Your task to perform on an android device: What is the recent news? Image 0: 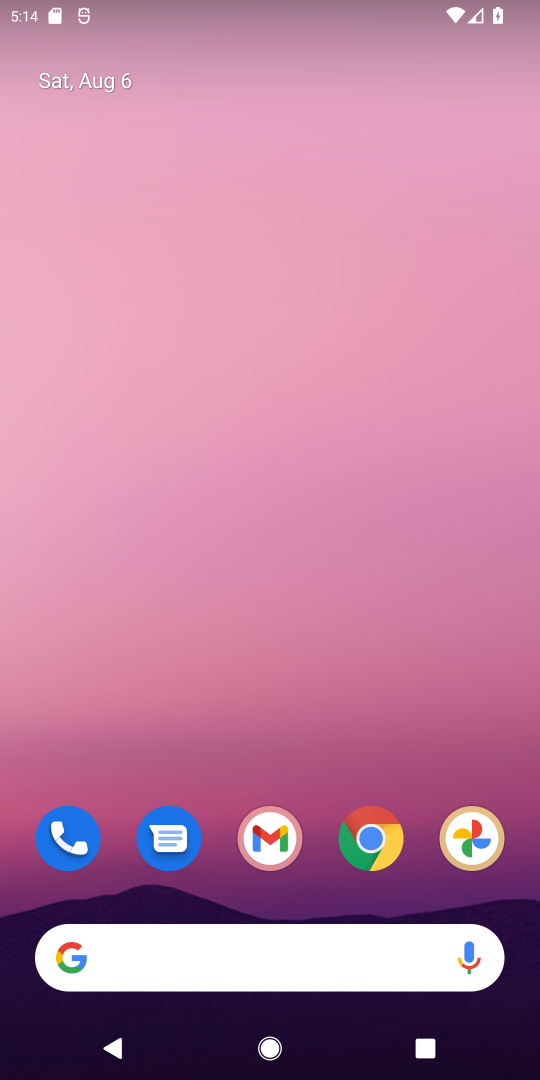
Step 0: click (79, 983)
Your task to perform on an android device: What is the recent news? Image 1: 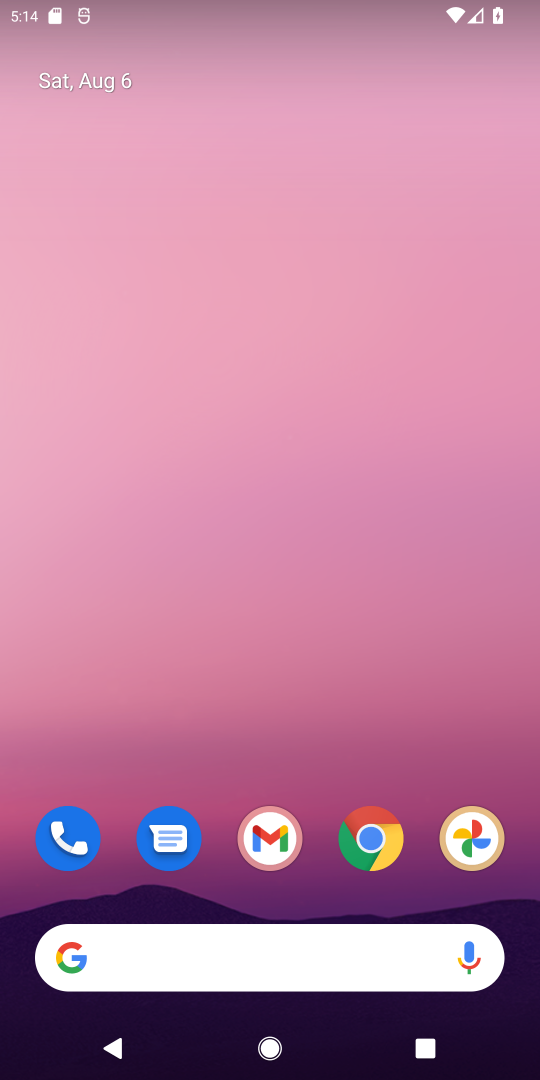
Step 1: click (50, 942)
Your task to perform on an android device: What is the recent news? Image 2: 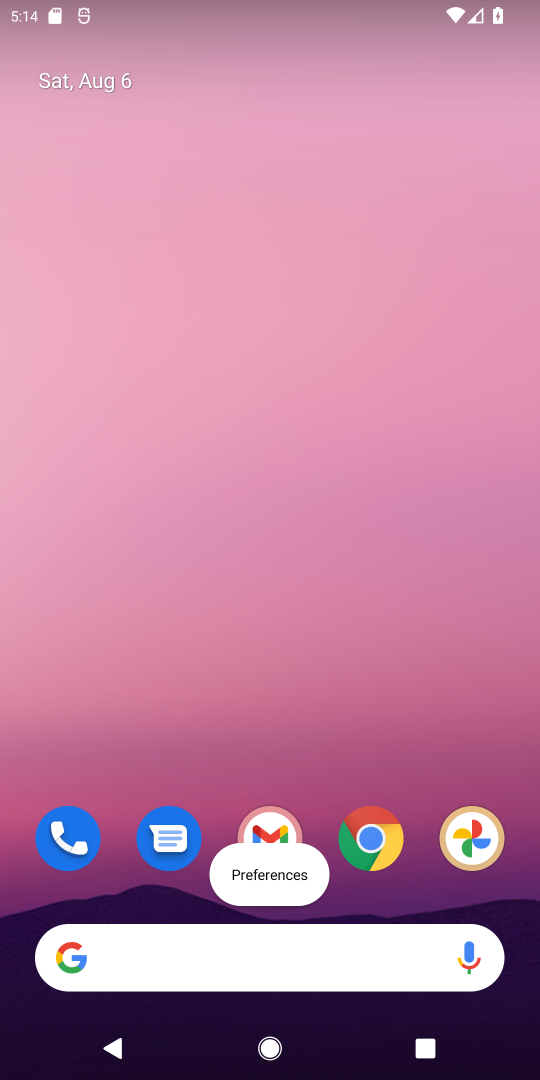
Step 2: click (57, 963)
Your task to perform on an android device: What is the recent news? Image 3: 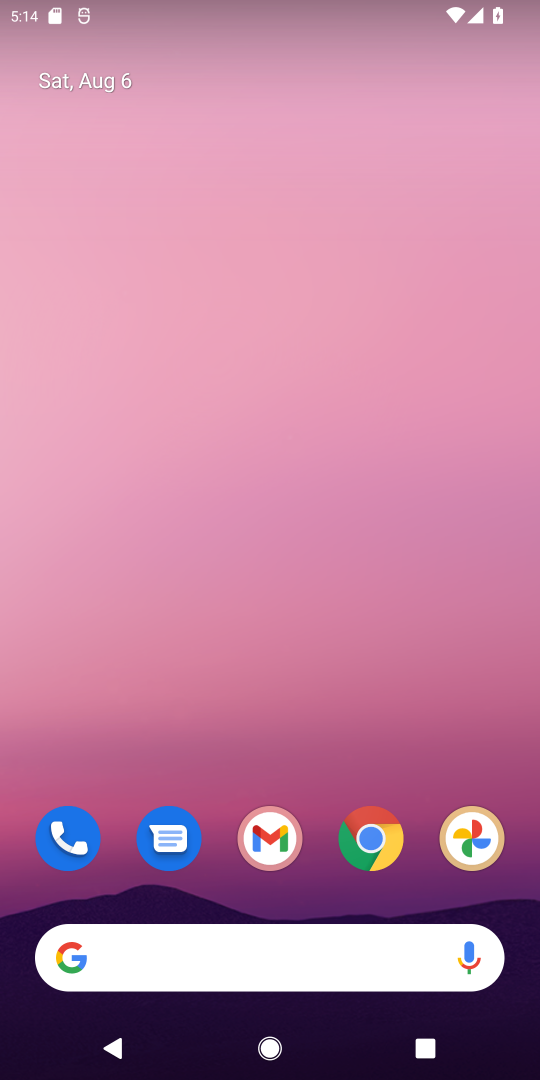
Step 3: click (62, 957)
Your task to perform on an android device: What is the recent news? Image 4: 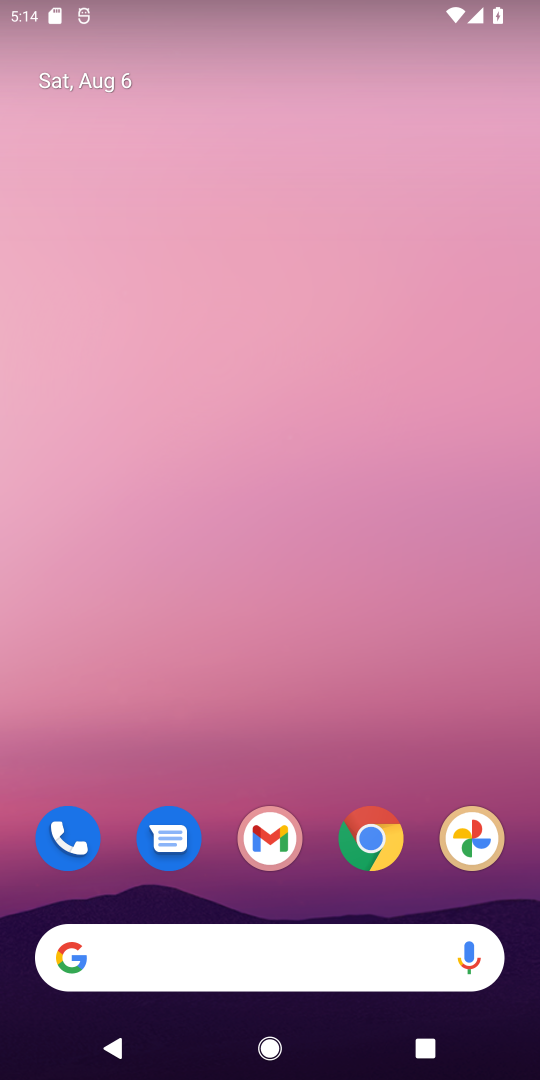
Step 4: click (67, 957)
Your task to perform on an android device: What is the recent news? Image 5: 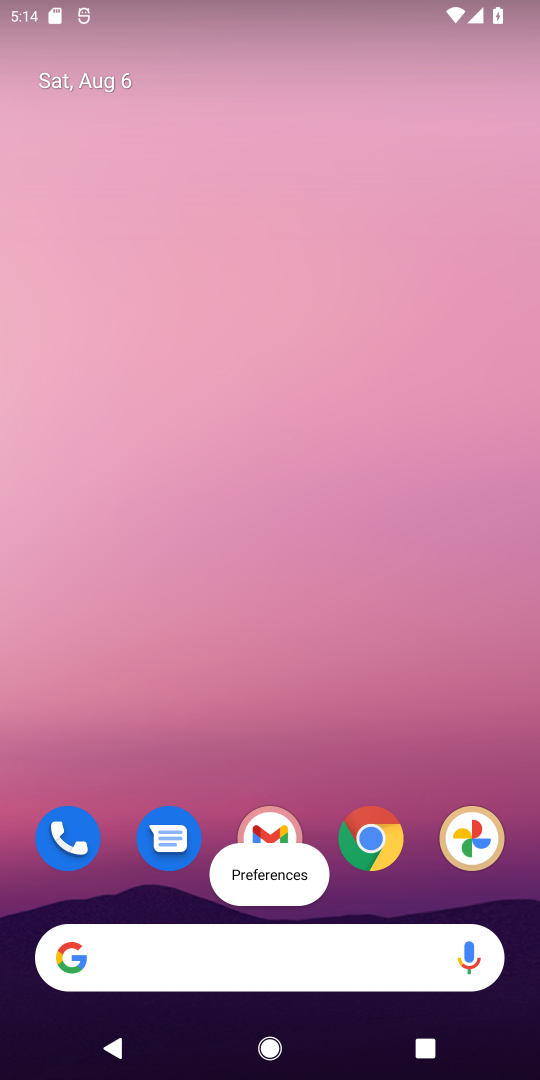
Step 5: click (67, 957)
Your task to perform on an android device: What is the recent news? Image 6: 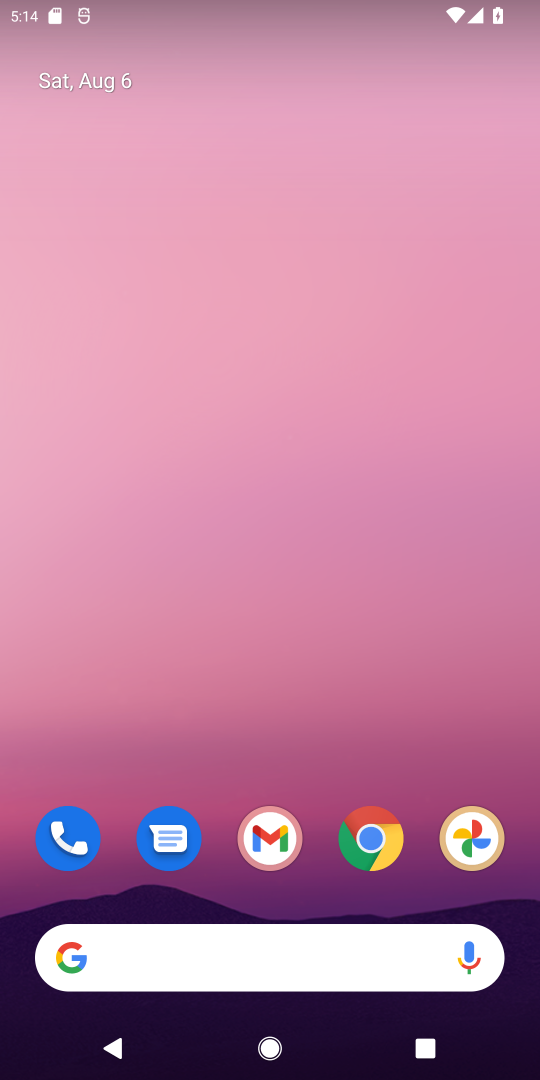
Step 6: click (69, 957)
Your task to perform on an android device: What is the recent news? Image 7: 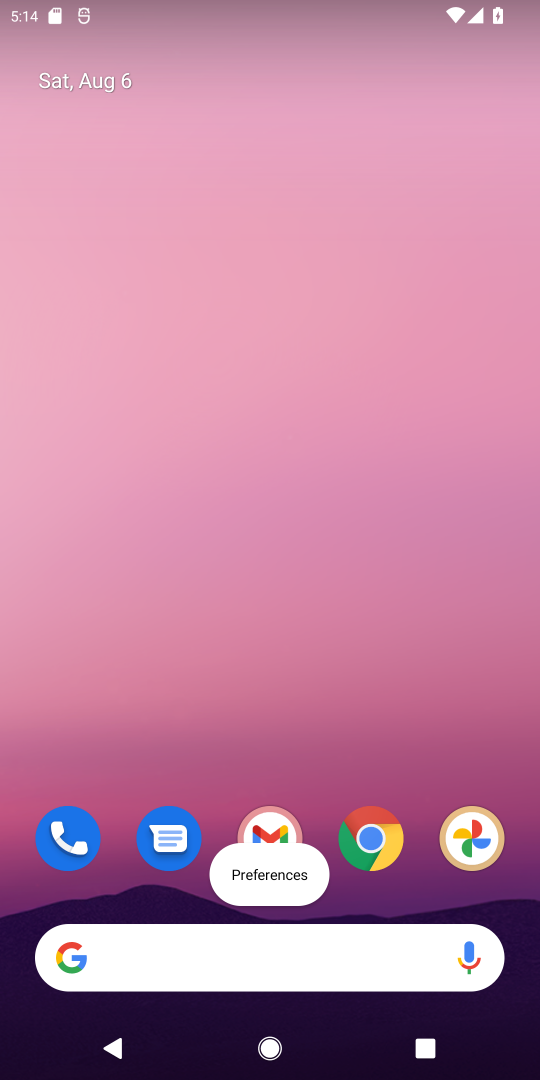
Step 7: click (70, 953)
Your task to perform on an android device: What is the recent news? Image 8: 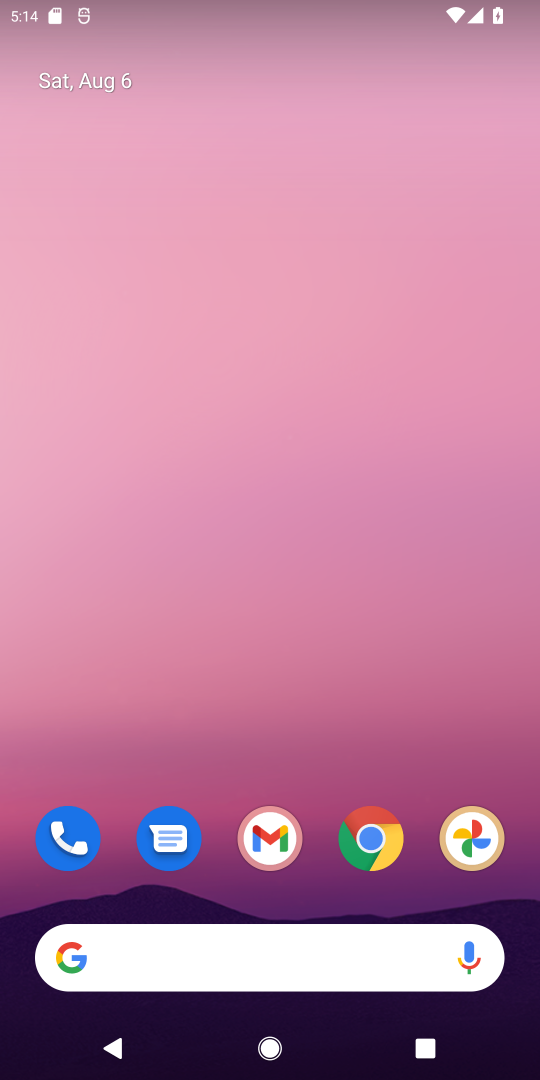
Step 8: drag from (317, 883) to (312, 143)
Your task to perform on an android device: What is the recent news? Image 9: 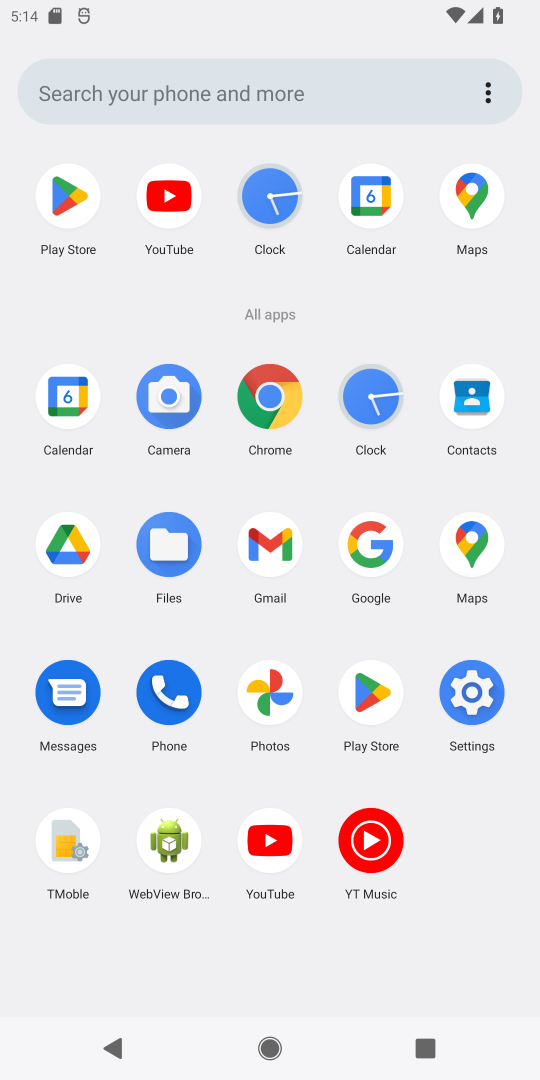
Step 9: click (366, 552)
Your task to perform on an android device: What is the recent news? Image 10: 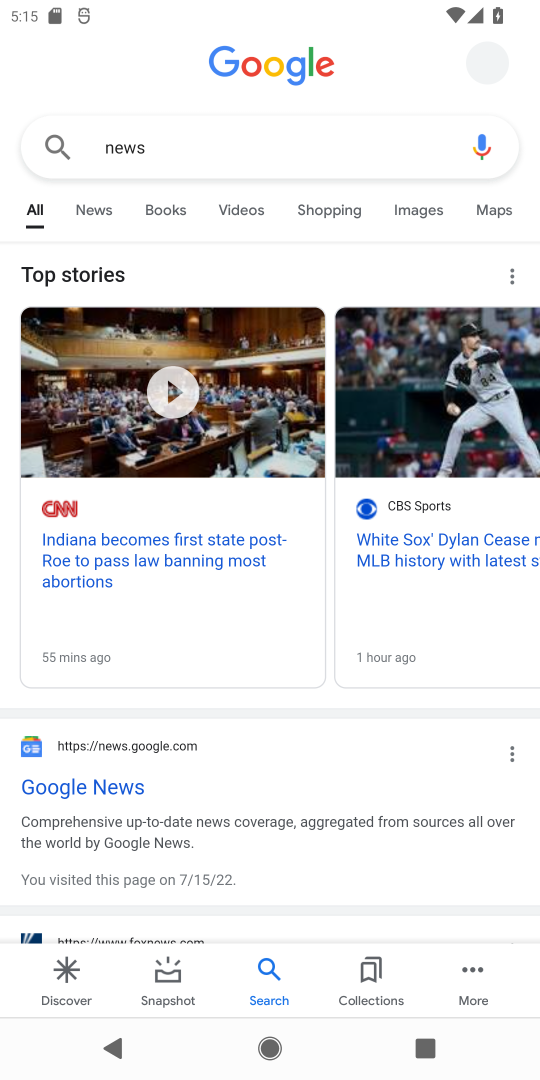
Step 10: click (199, 145)
Your task to perform on an android device: What is the recent news? Image 11: 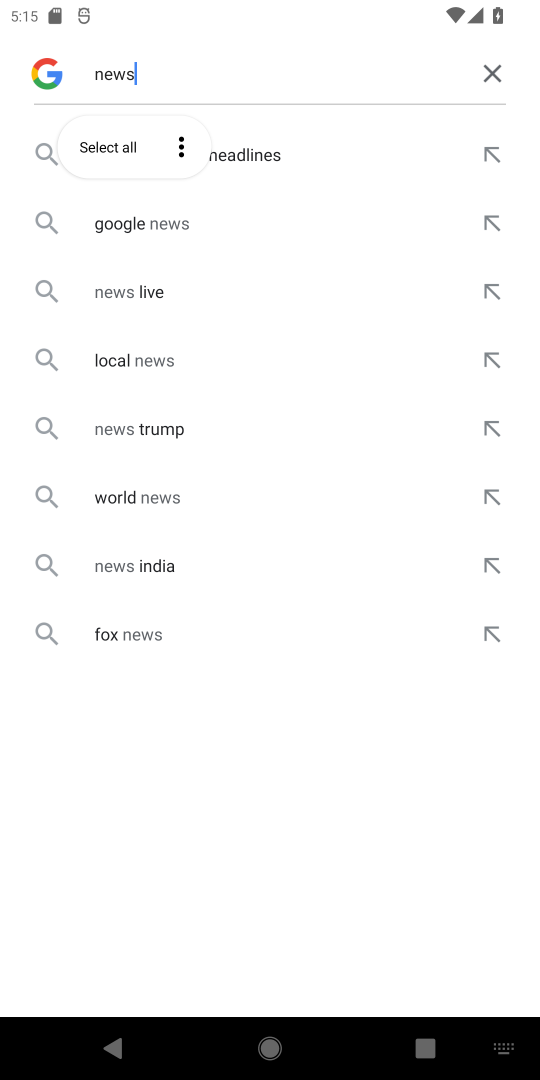
Step 11: click (499, 77)
Your task to perform on an android device: What is the recent news? Image 12: 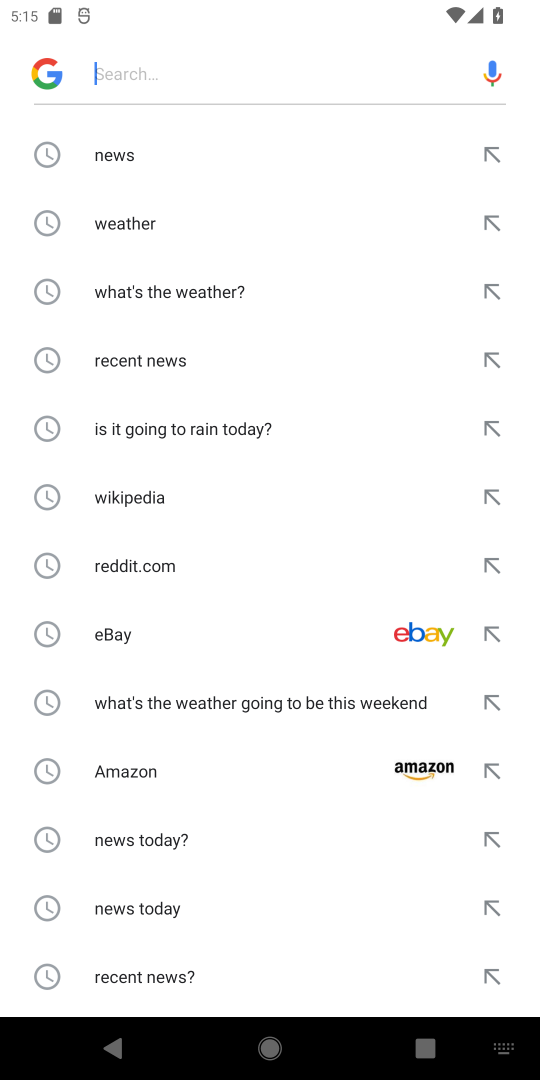
Step 12: click (166, 361)
Your task to perform on an android device: What is the recent news? Image 13: 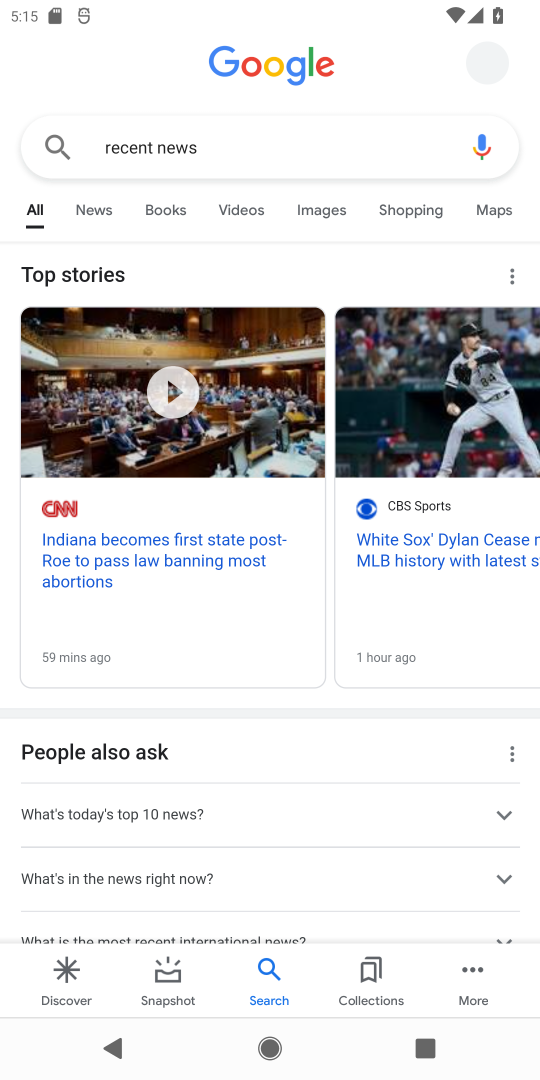
Step 13: task complete